Your task to perform on an android device: turn off smart reply in the gmail app Image 0: 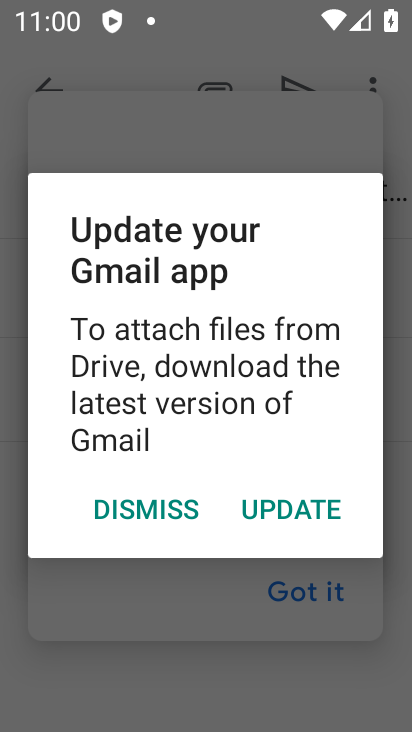
Step 0: press home button
Your task to perform on an android device: turn off smart reply in the gmail app Image 1: 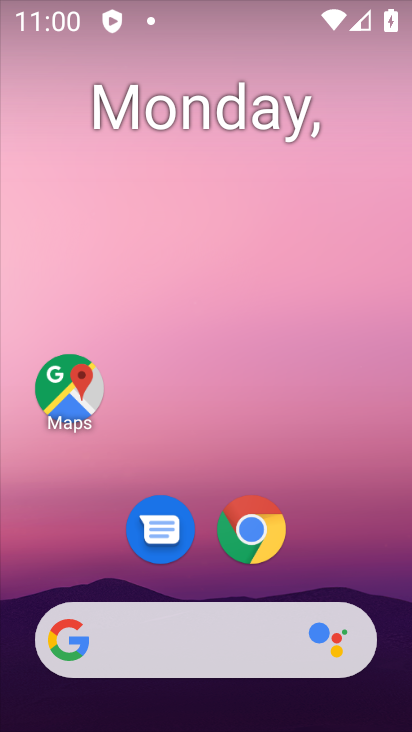
Step 1: drag from (190, 577) to (180, 131)
Your task to perform on an android device: turn off smart reply in the gmail app Image 2: 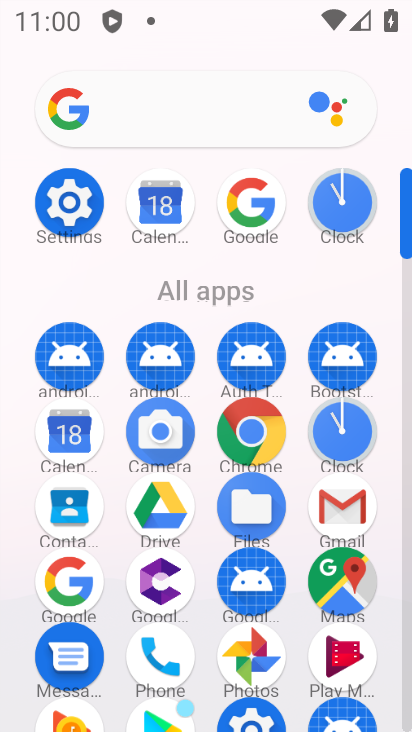
Step 2: click (353, 501)
Your task to perform on an android device: turn off smart reply in the gmail app Image 3: 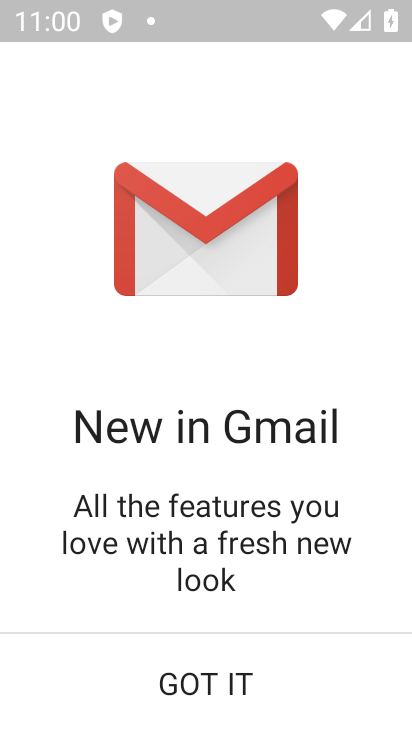
Step 3: click (268, 663)
Your task to perform on an android device: turn off smart reply in the gmail app Image 4: 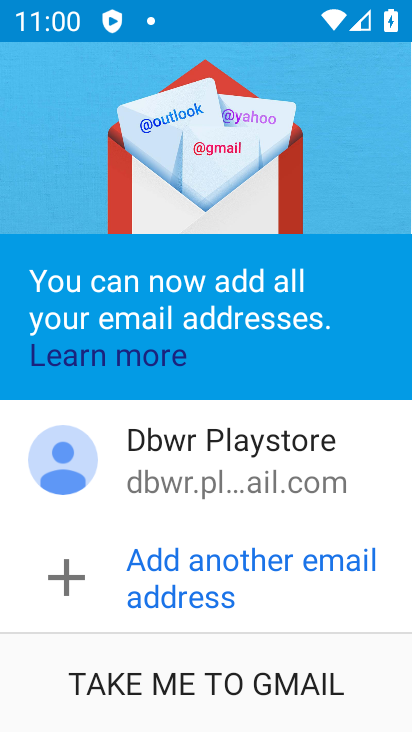
Step 4: click (282, 679)
Your task to perform on an android device: turn off smart reply in the gmail app Image 5: 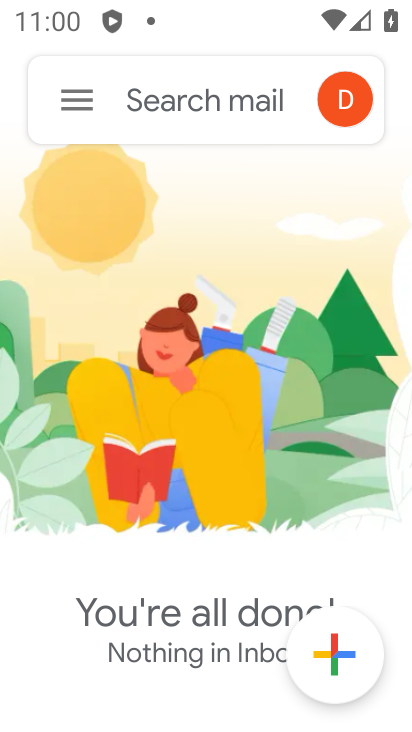
Step 5: click (89, 99)
Your task to perform on an android device: turn off smart reply in the gmail app Image 6: 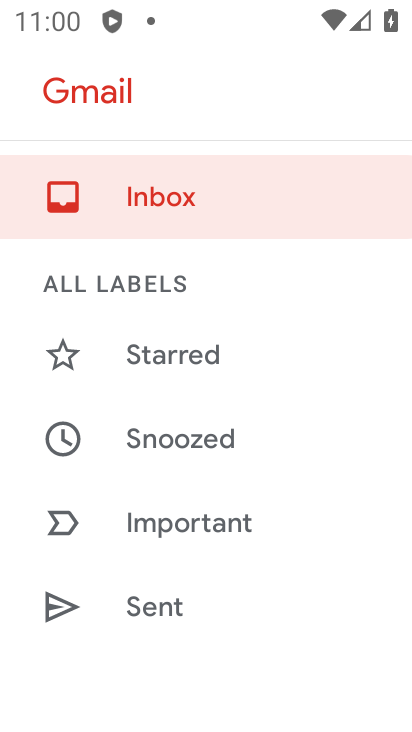
Step 6: drag from (222, 584) to (229, 260)
Your task to perform on an android device: turn off smart reply in the gmail app Image 7: 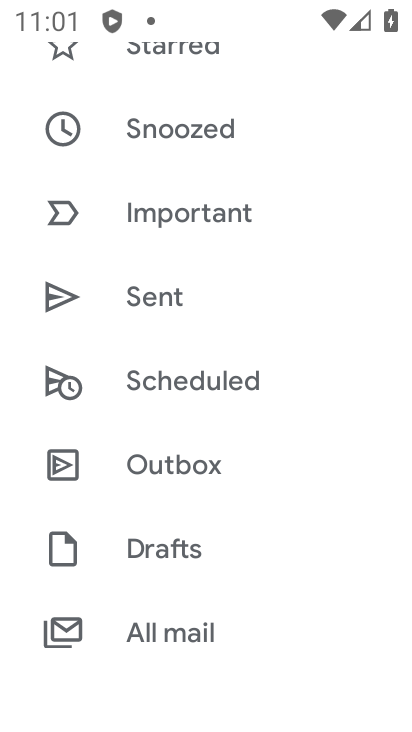
Step 7: drag from (229, 523) to (248, 247)
Your task to perform on an android device: turn off smart reply in the gmail app Image 8: 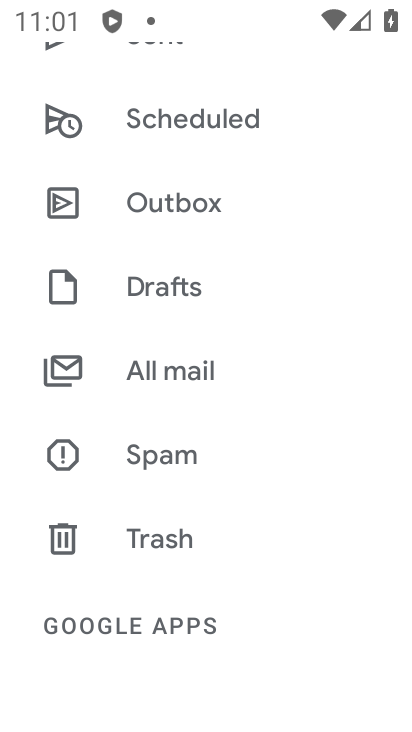
Step 8: drag from (232, 560) to (256, 247)
Your task to perform on an android device: turn off smart reply in the gmail app Image 9: 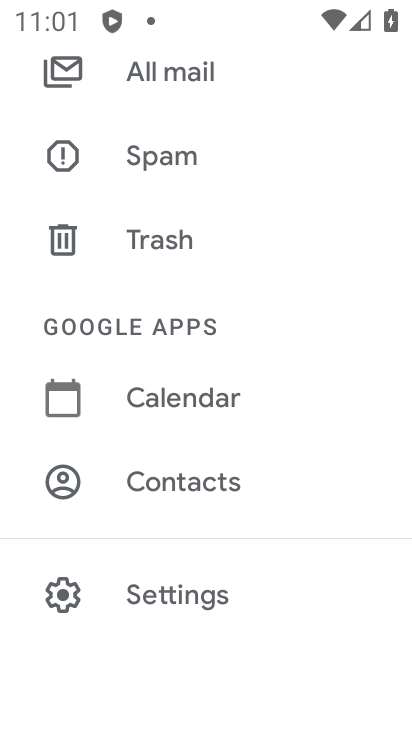
Step 9: click (205, 587)
Your task to perform on an android device: turn off smart reply in the gmail app Image 10: 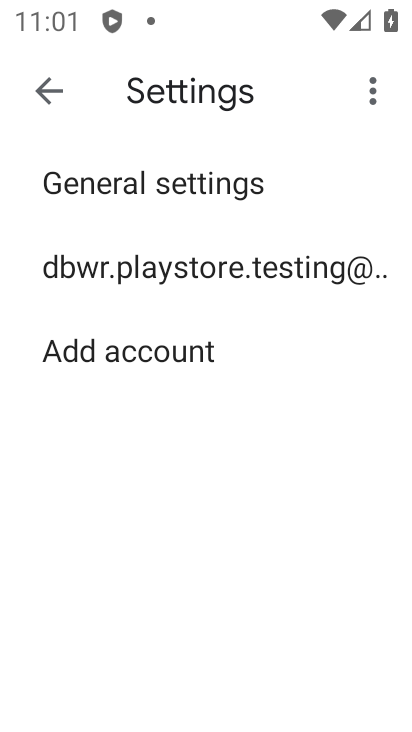
Step 10: click (212, 278)
Your task to perform on an android device: turn off smart reply in the gmail app Image 11: 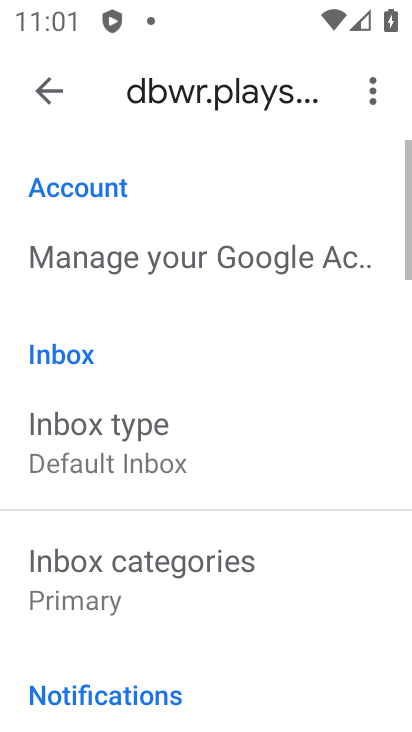
Step 11: drag from (231, 488) to (235, 236)
Your task to perform on an android device: turn off smart reply in the gmail app Image 12: 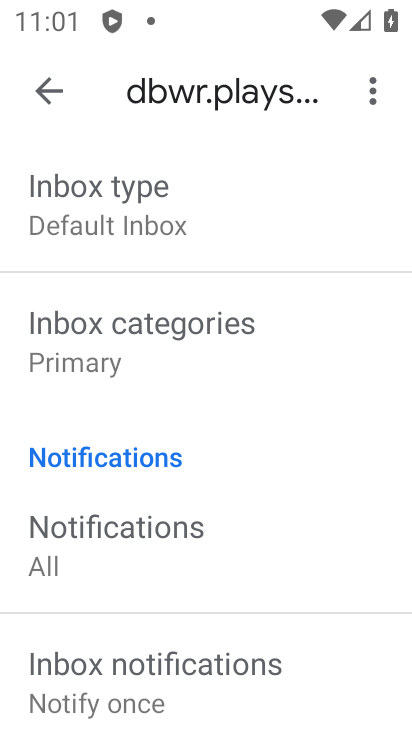
Step 12: drag from (237, 570) to (257, 289)
Your task to perform on an android device: turn off smart reply in the gmail app Image 13: 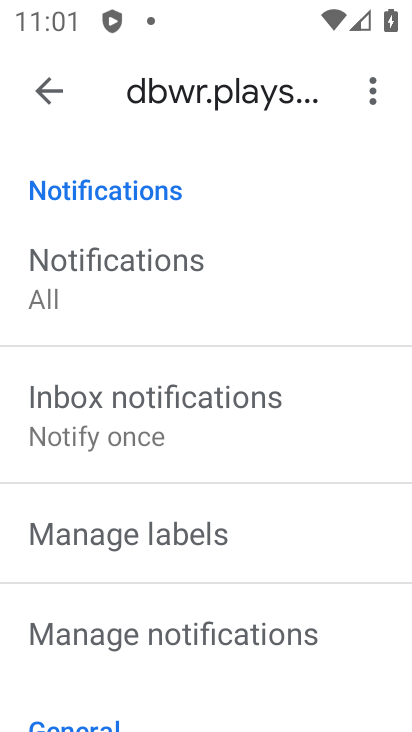
Step 13: drag from (259, 618) to (253, 367)
Your task to perform on an android device: turn off smart reply in the gmail app Image 14: 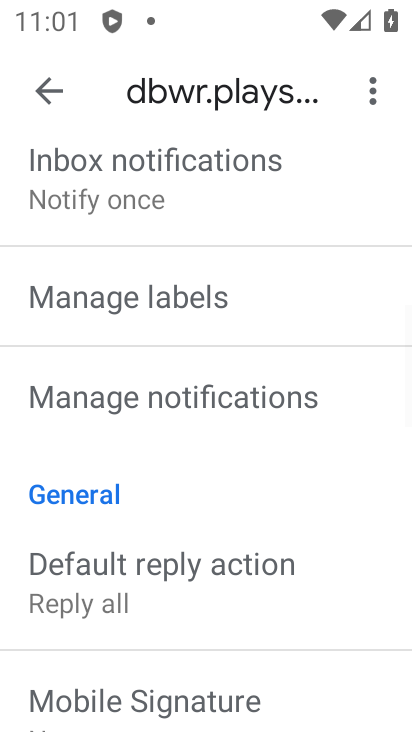
Step 14: drag from (259, 496) to (287, 350)
Your task to perform on an android device: turn off smart reply in the gmail app Image 15: 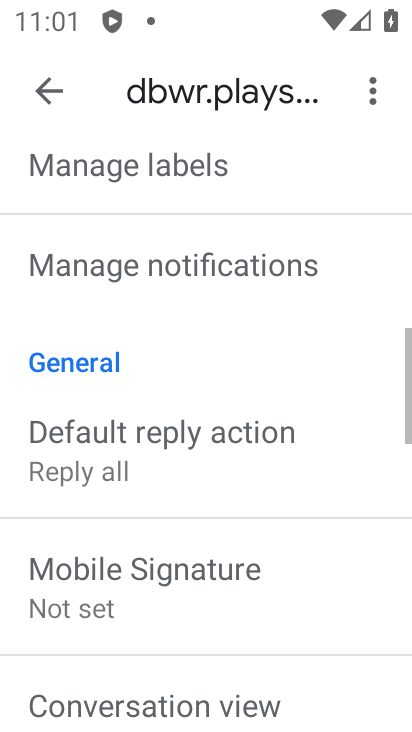
Step 15: drag from (260, 655) to (286, 353)
Your task to perform on an android device: turn off smart reply in the gmail app Image 16: 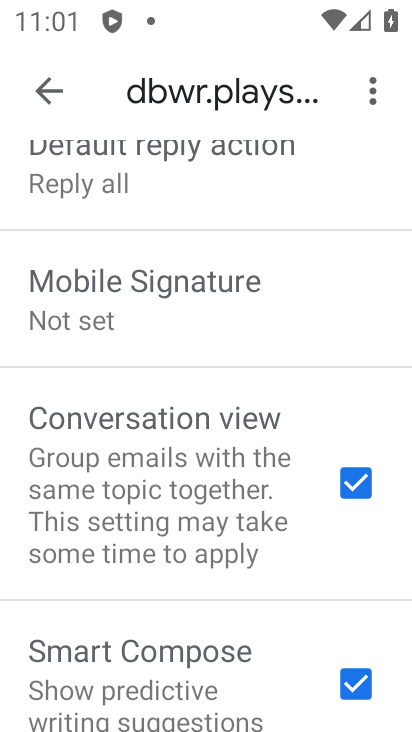
Step 16: drag from (289, 625) to (293, 267)
Your task to perform on an android device: turn off smart reply in the gmail app Image 17: 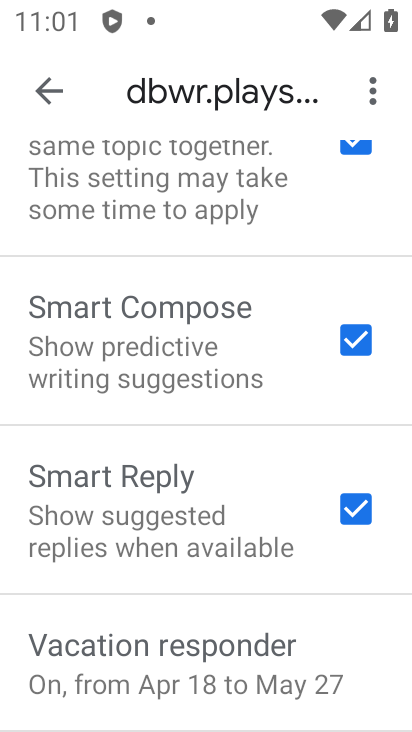
Step 17: click (358, 510)
Your task to perform on an android device: turn off smart reply in the gmail app Image 18: 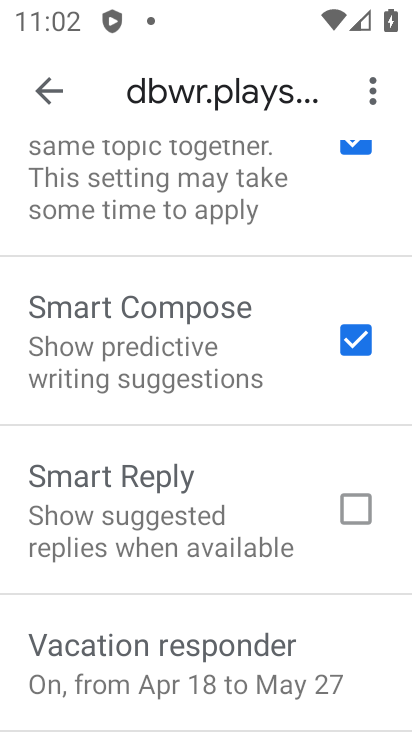
Step 18: task complete